Your task to perform on an android device: Open the Play Movies app and select the watchlist tab. Image 0: 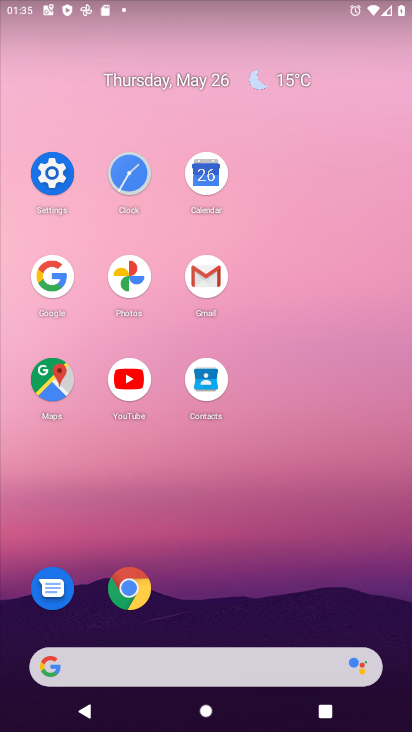
Step 0: drag from (348, 599) to (370, 155)
Your task to perform on an android device: Open the Play Movies app and select the watchlist tab. Image 1: 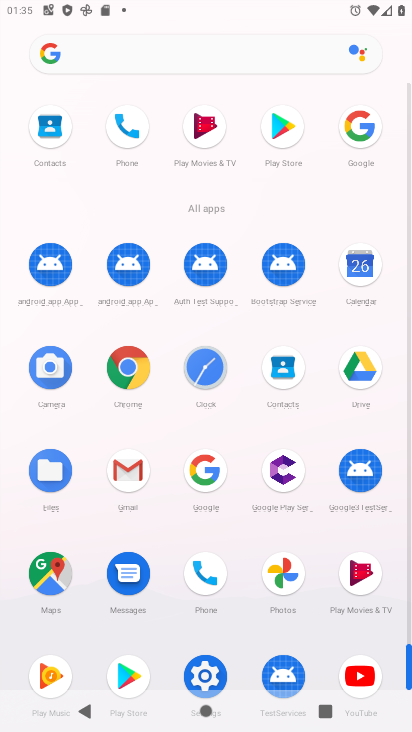
Step 1: click (349, 567)
Your task to perform on an android device: Open the Play Movies app and select the watchlist tab. Image 2: 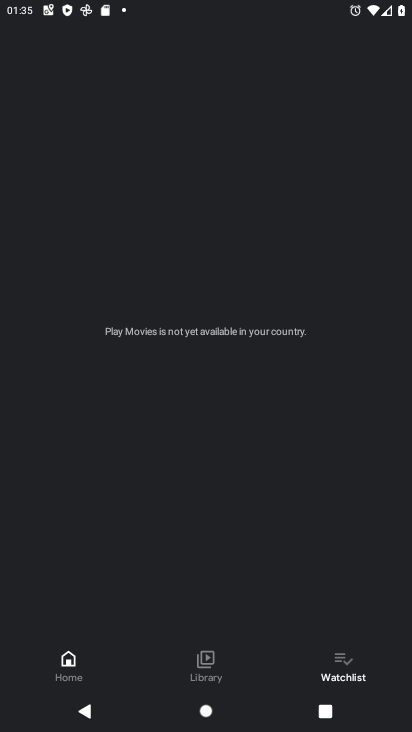
Step 2: click (341, 655)
Your task to perform on an android device: Open the Play Movies app and select the watchlist tab. Image 3: 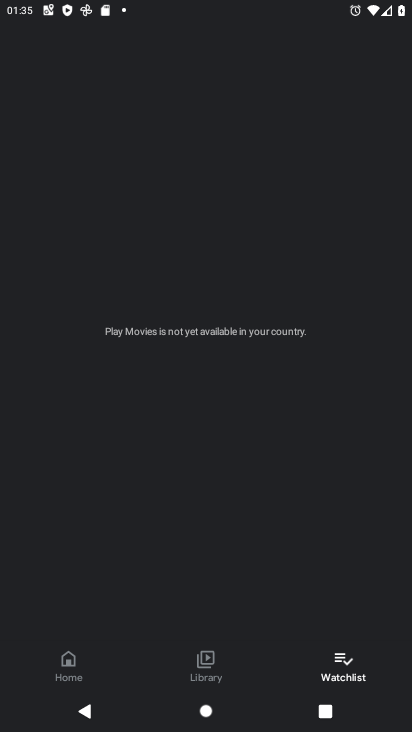
Step 3: task complete